Your task to perform on an android device: turn on airplane mode Image 0: 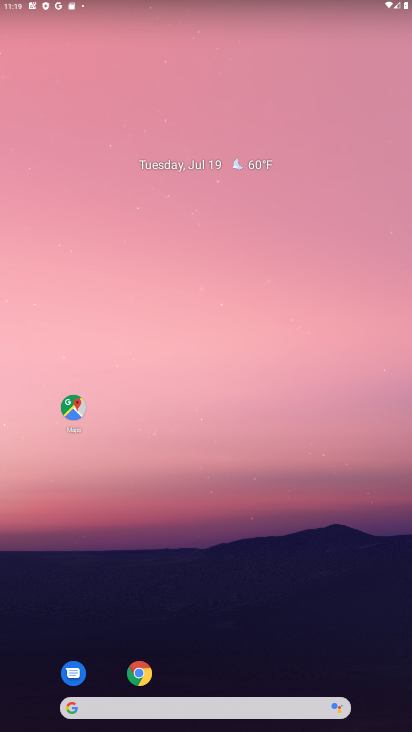
Step 0: drag from (376, 663) to (262, 83)
Your task to perform on an android device: turn on airplane mode Image 1: 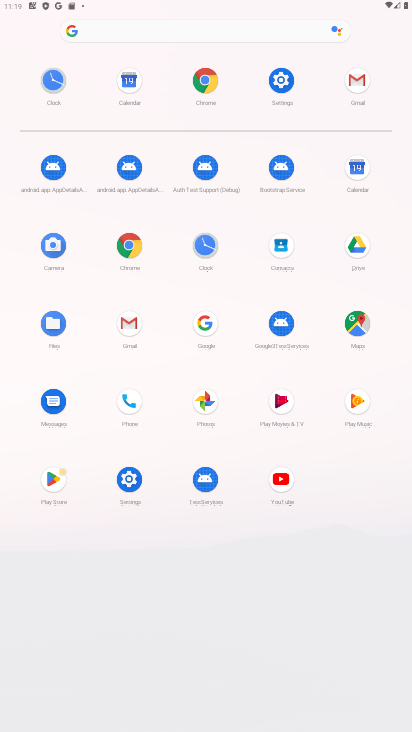
Step 1: click (128, 480)
Your task to perform on an android device: turn on airplane mode Image 2: 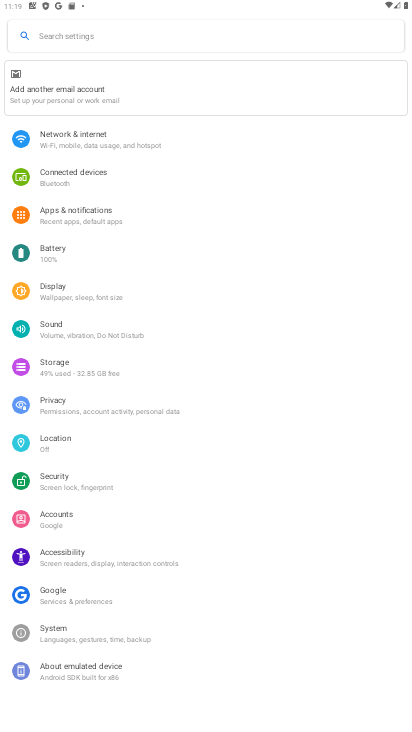
Step 2: click (71, 133)
Your task to perform on an android device: turn on airplane mode Image 3: 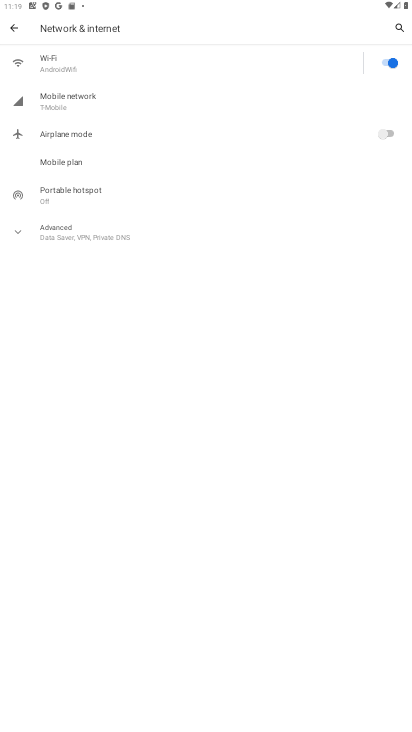
Step 3: click (390, 132)
Your task to perform on an android device: turn on airplane mode Image 4: 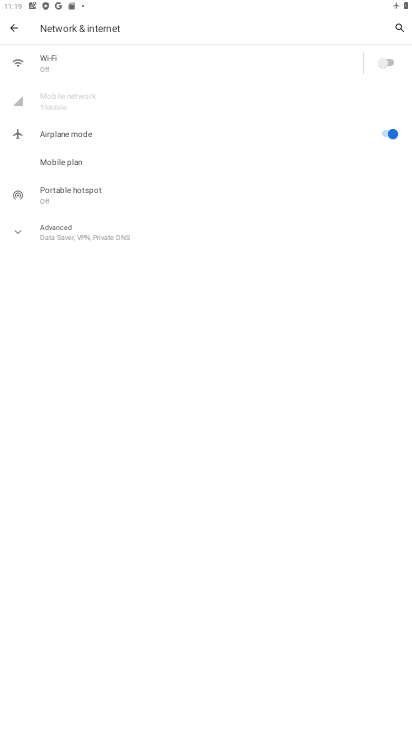
Step 4: task complete